Your task to perform on an android device: change the clock style Image 0: 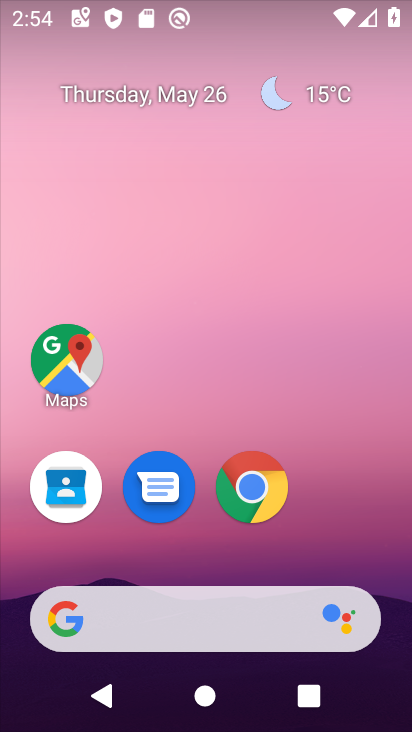
Step 0: drag from (174, 527) to (200, 189)
Your task to perform on an android device: change the clock style Image 1: 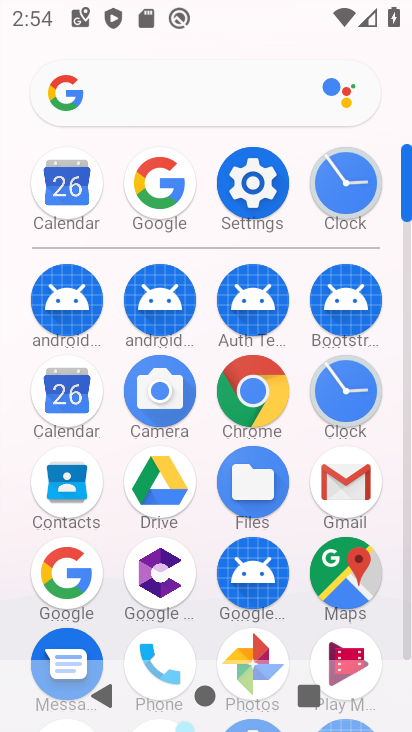
Step 1: click (320, 186)
Your task to perform on an android device: change the clock style Image 2: 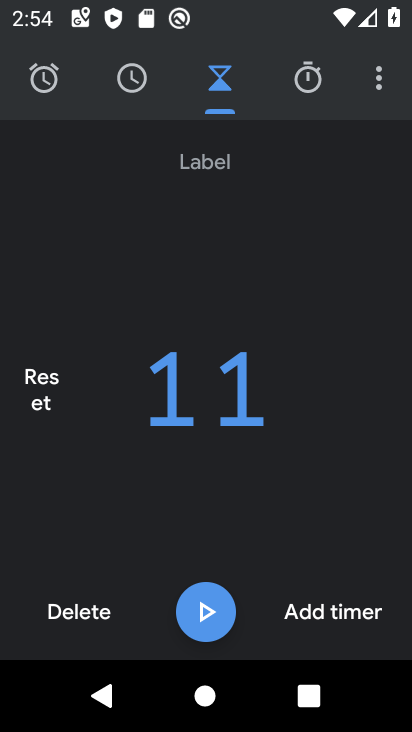
Step 2: click (378, 77)
Your task to perform on an android device: change the clock style Image 3: 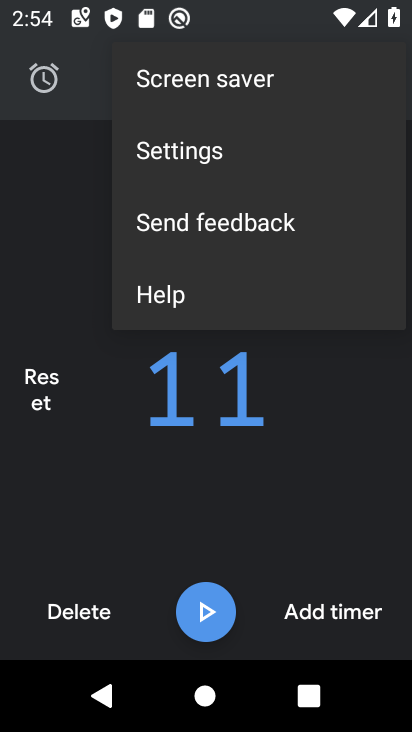
Step 3: click (241, 147)
Your task to perform on an android device: change the clock style Image 4: 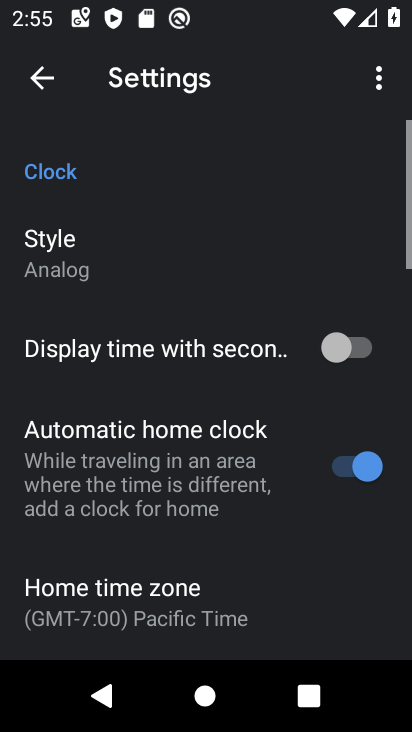
Step 4: click (69, 239)
Your task to perform on an android device: change the clock style Image 5: 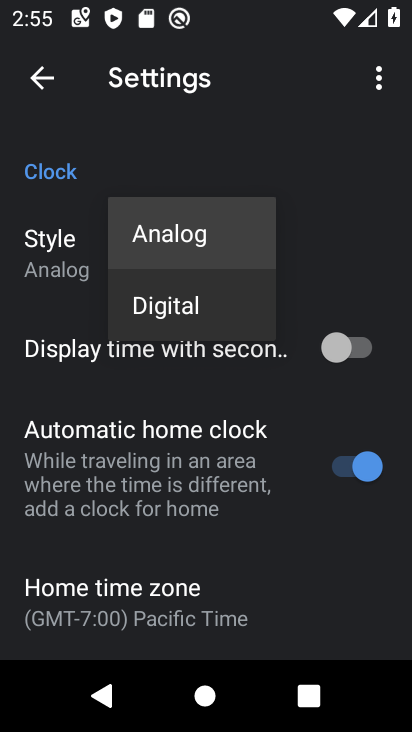
Step 5: click (136, 291)
Your task to perform on an android device: change the clock style Image 6: 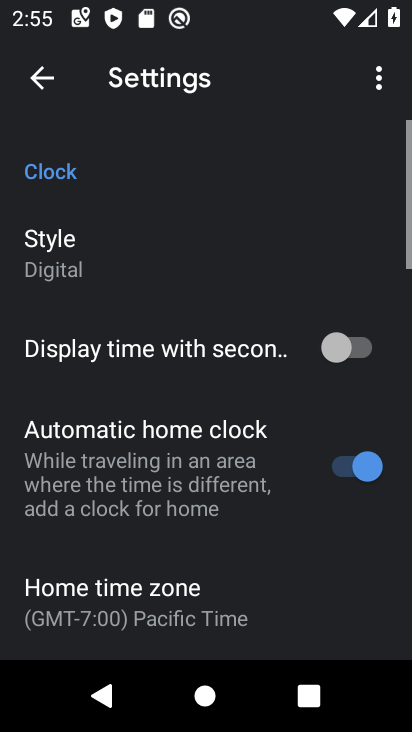
Step 6: task complete